Your task to perform on an android device: make emails show in primary in the gmail app Image 0: 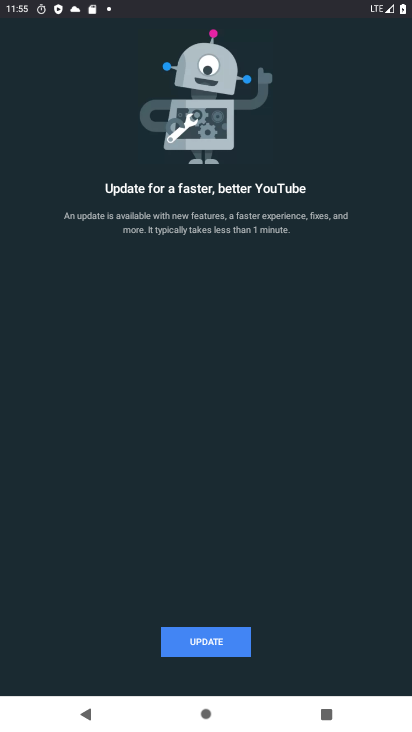
Step 0: press home button
Your task to perform on an android device: make emails show in primary in the gmail app Image 1: 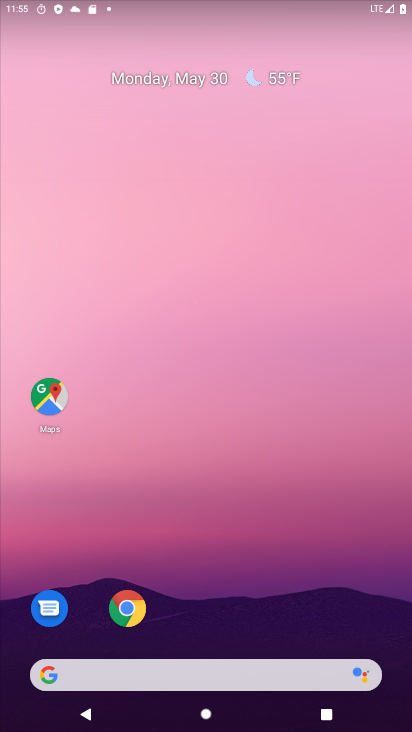
Step 1: drag from (316, 642) to (294, 3)
Your task to perform on an android device: make emails show in primary in the gmail app Image 2: 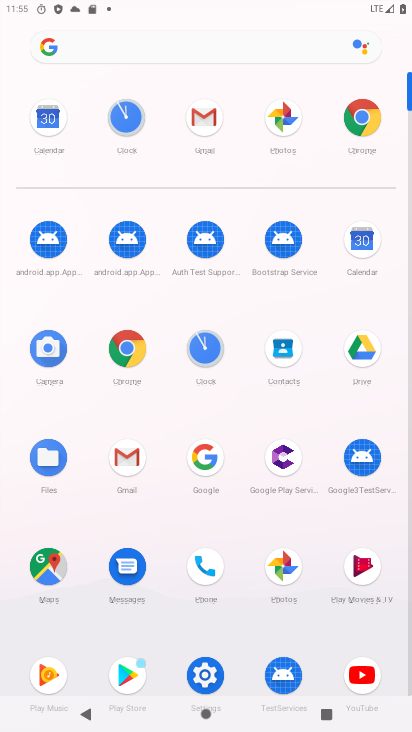
Step 2: click (204, 115)
Your task to perform on an android device: make emails show in primary in the gmail app Image 3: 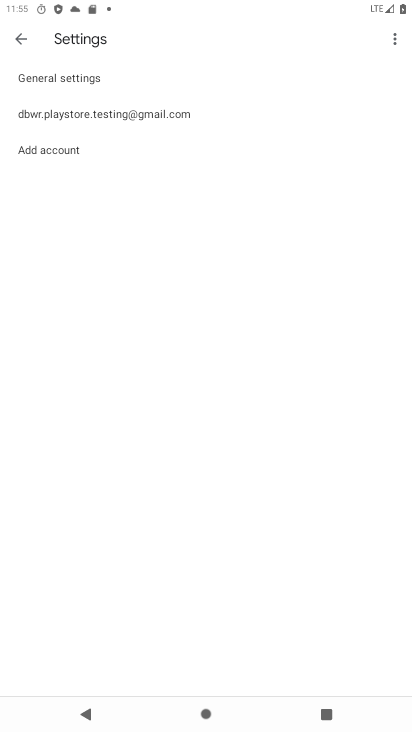
Step 3: click (62, 111)
Your task to perform on an android device: make emails show in primary in the gmail app Image 4: 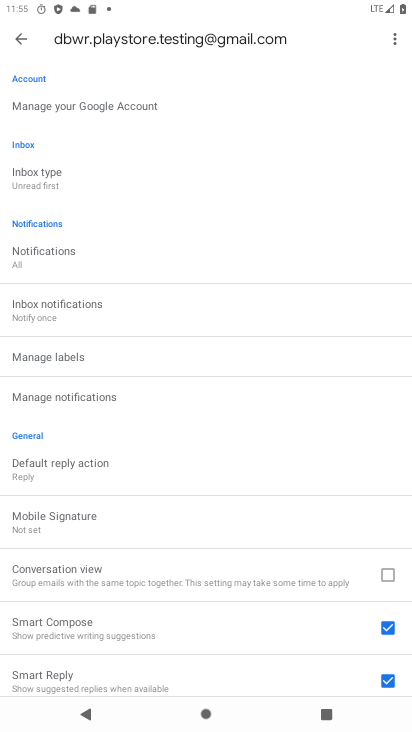
Step 4: task complete